Your task to perform on an android device: Open the phone app and click the voicemail tab. Image 0: 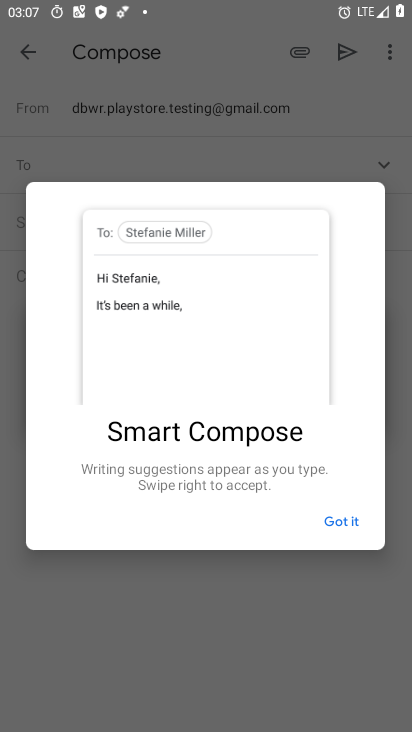
Step 0: press home button
Your task to perform on an android device: Open the phone app and click the voicemail tab. Image 1: 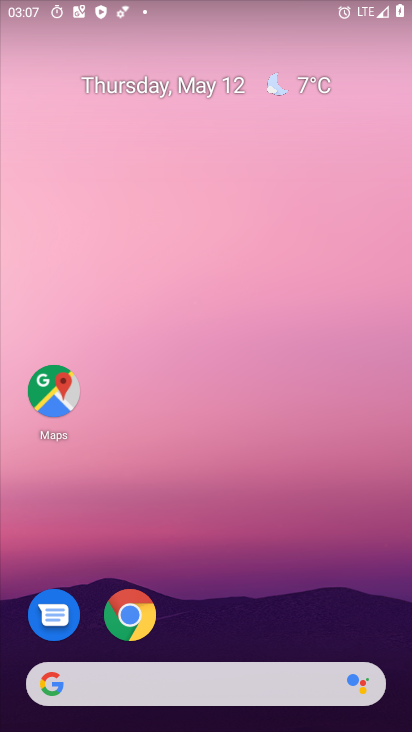
Step 1: drag from (192, 673) to (221, 234)
Your task to perform on an android device: Open the phone app and click the voicemail tab. Image 2: 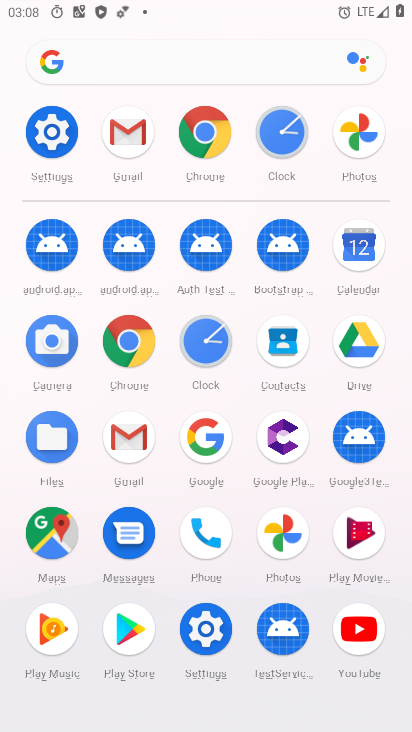
Step 2: click (224, 548)
Your task to perform on an android device: Open the phone app and click the voicemail tab. Image 3: 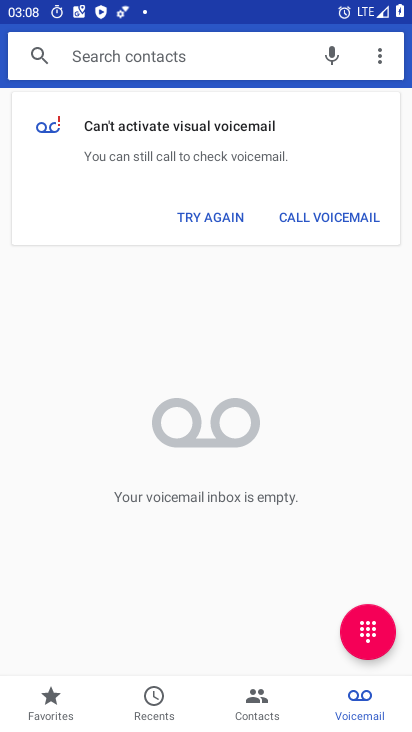
Step 3: task complete